Your task to perform on an android device: Open the web browser Image 0: 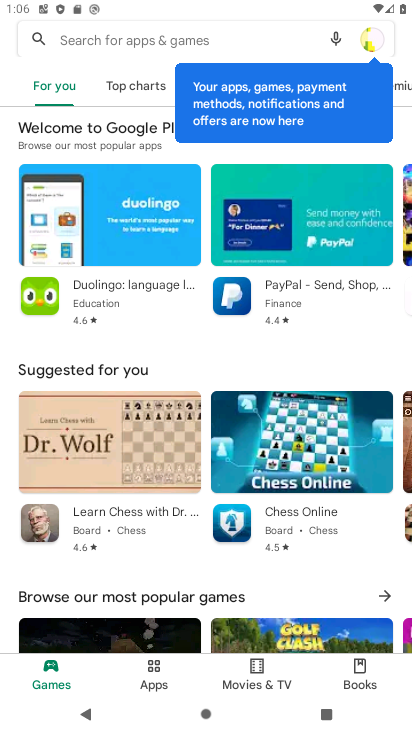
Step 0: press home button
Your task to perform on an android device: Open the web browser Image 1: 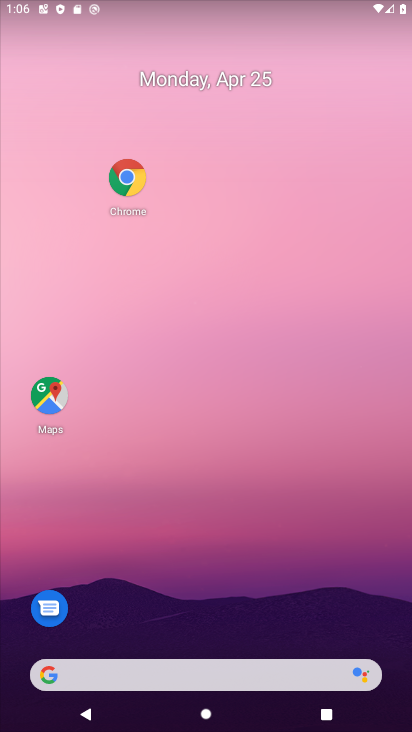
Step 1: drag from (281, 453) to (160, 67)
Your task to perform on an android device: Open the web browser Image 2: 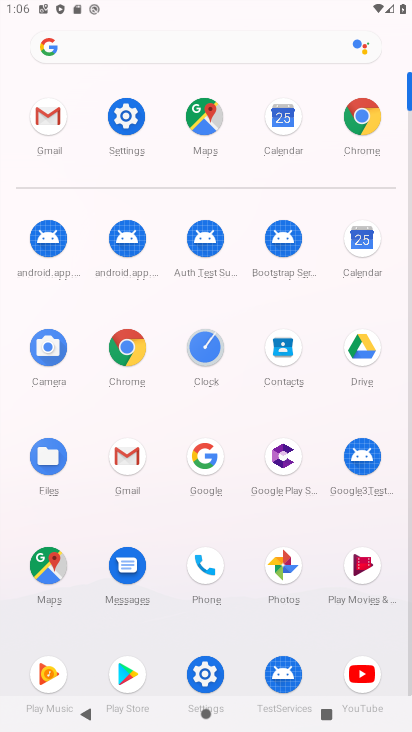
Step 2: click (122, 349)
Your task to perform on an android device: Open the web browser Image 3: 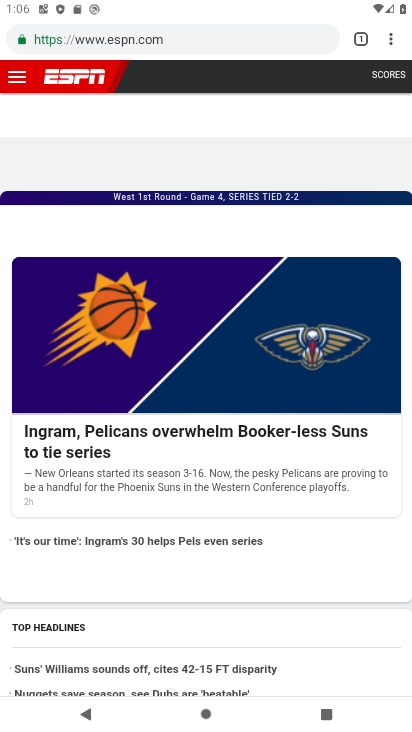
Step 3: task complete